Your task to perform on an android device: check out phone information Image 0: 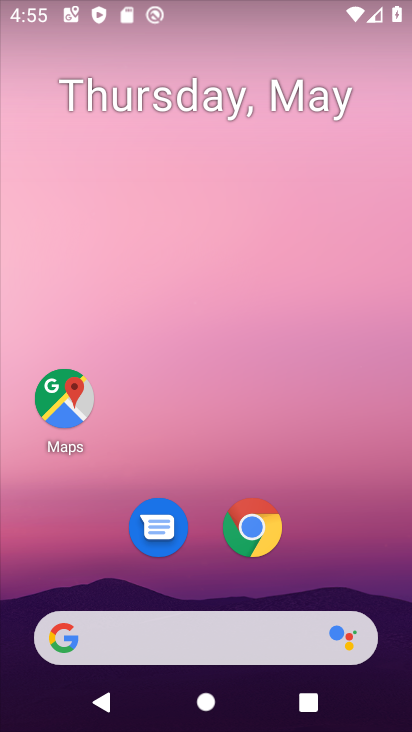
Step 0: drag from (341, 523) to (126, 23)
Your task to perform on an android device: check out phone information Image 1: 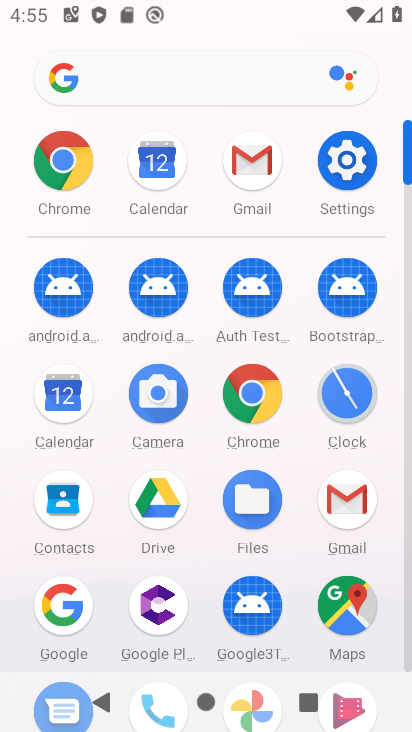
Step 1: click (350, 178)
Your task to perform on an android device: check out phone information Image 2: 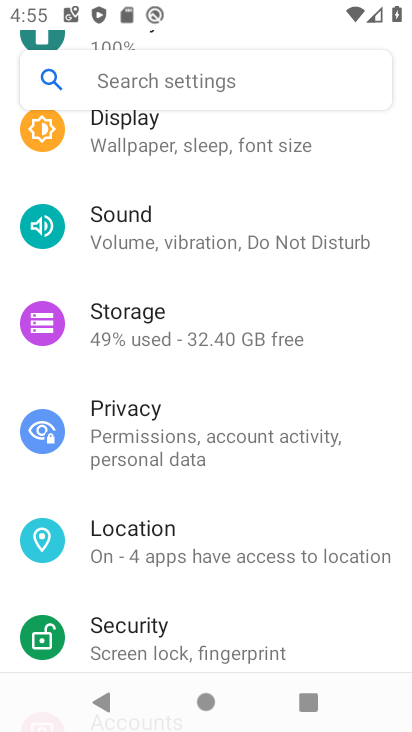
Step 2: drag from (188, 212) to (192, 685)
Your task to perform on an android device: check out phone information Image 3: 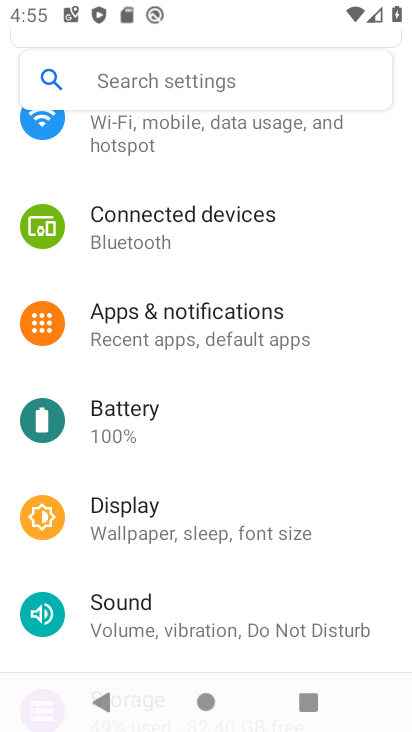
Step 3: drag from (239, 223) to (232, 662)
Your task to perform on an android device: check out phone information Image 4: 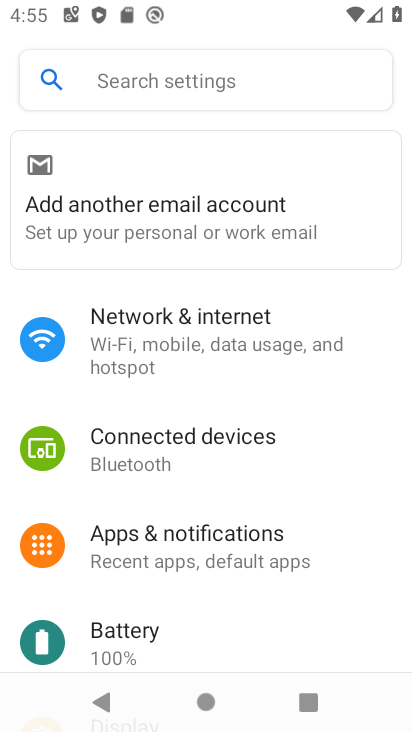
Step 4: drag from (230, 653) to (268, 180)
Your task to perform on an android device: check out phone information Image 5: 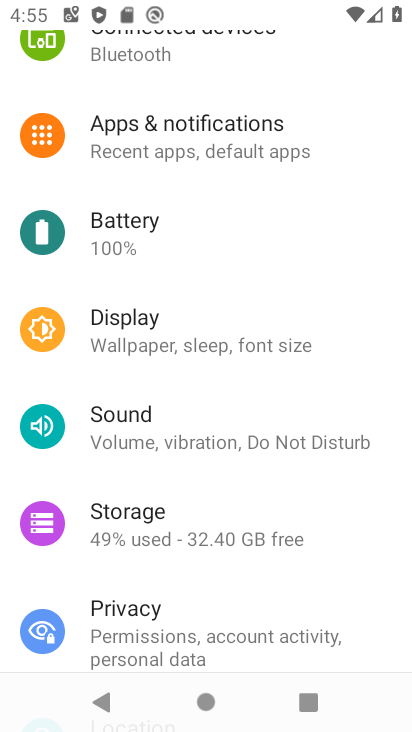
Step 5: drag from (222, 602) to (253, 136)
Your task to perform on an android device: check out phone information Image 6: 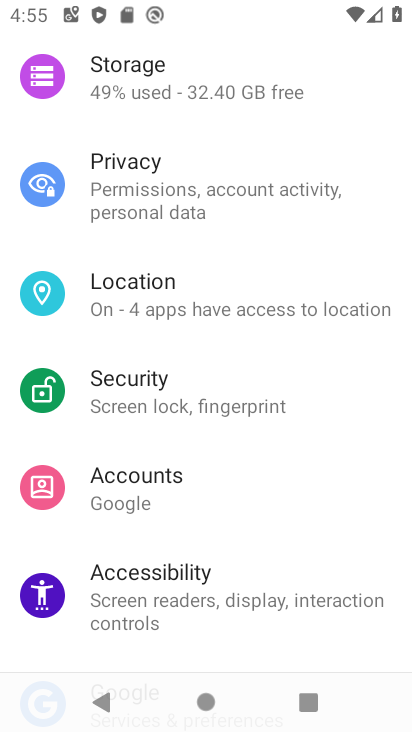
Step 6: drag from (218, 592) to (299, 182)
Your task to perform on an android device: check out phone information Image 7: 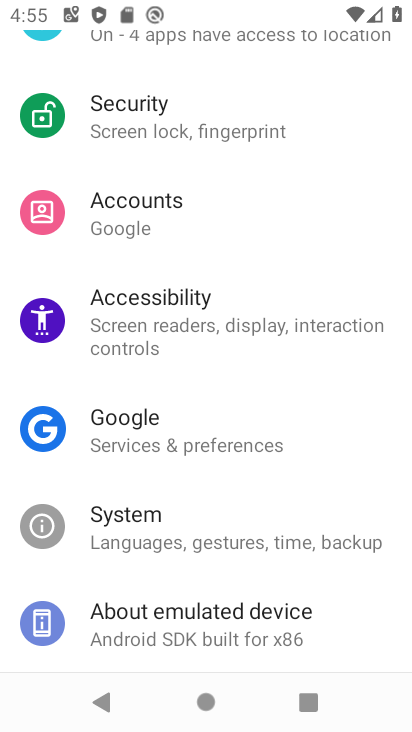
Step 7: click (230, 622)
Your task to perform on an android device: check out phone information Image 8: 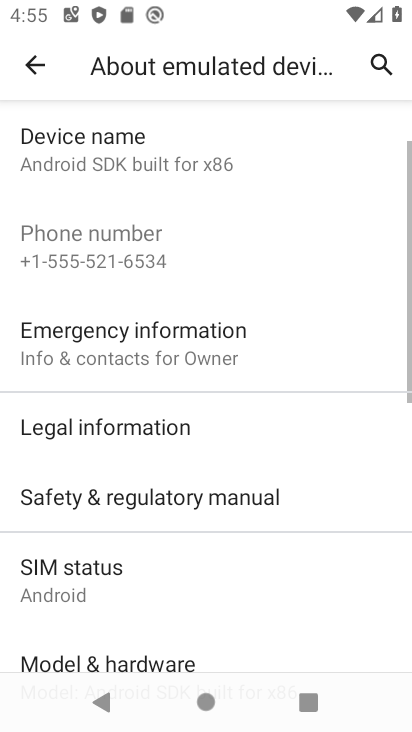
Step 8: task complete